Your task to perform on an android device: Go to privacy settings Image 0: 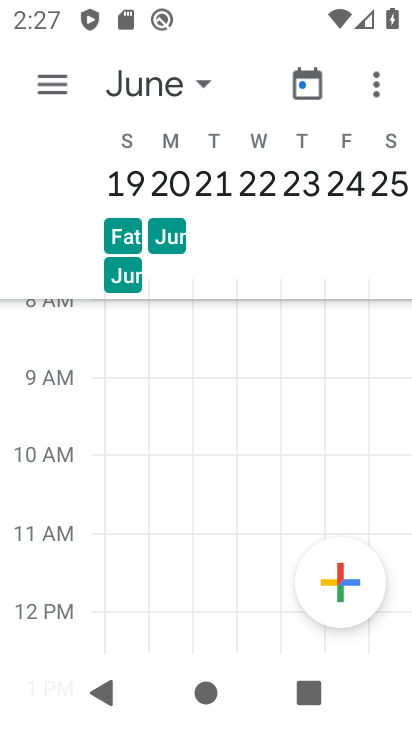
Step 0: press back button
Your task to perform on an android device: Go to privacy settings Image 1: 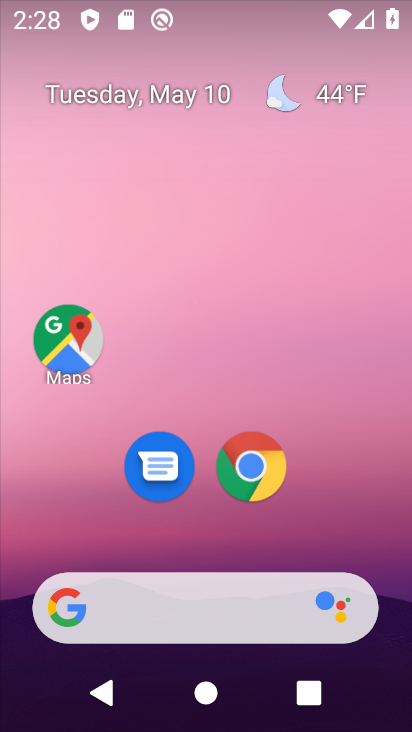
Step 1: drag from (338, 543) to (289, 35)
Your task to perform on an android device: Go to privacy settings Image 2: 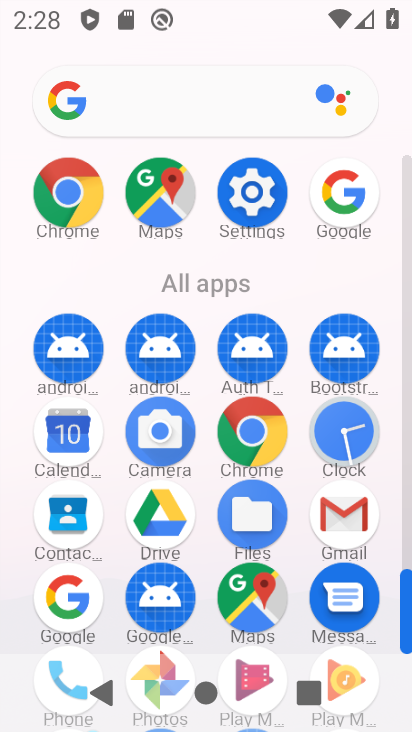
Step 2: click (253, 192)
Your task to perform on an android device: Go to privacy settings Image 3: 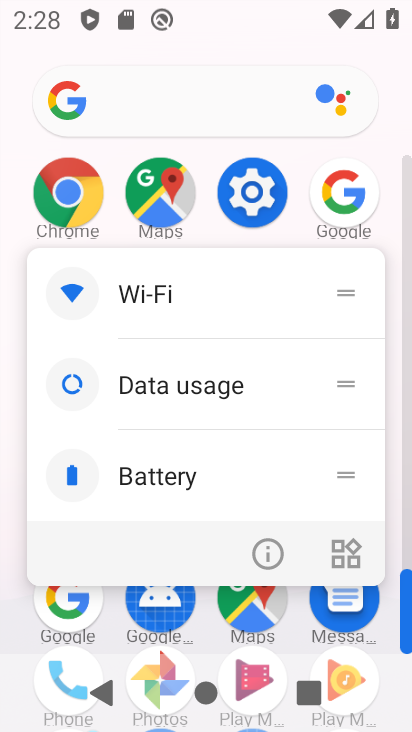
Step 3: click (252, 192)
Your task to perform on an android device: Go to privacy settings Image 4: 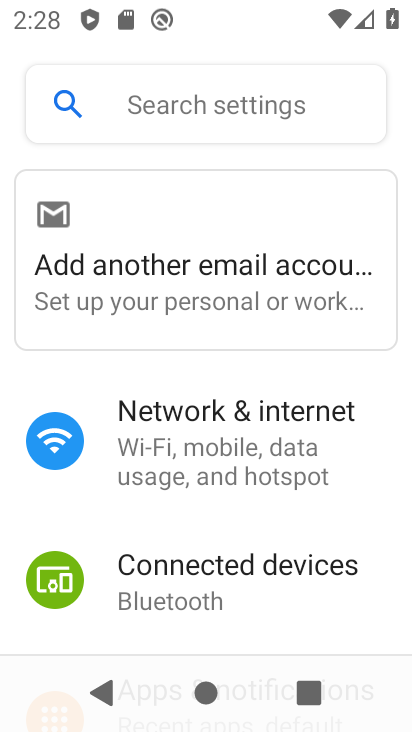
Step 4: drag from (216, 630) to (254, 475)
Your task to perform on an android device: Go to privacy settings Image 5: 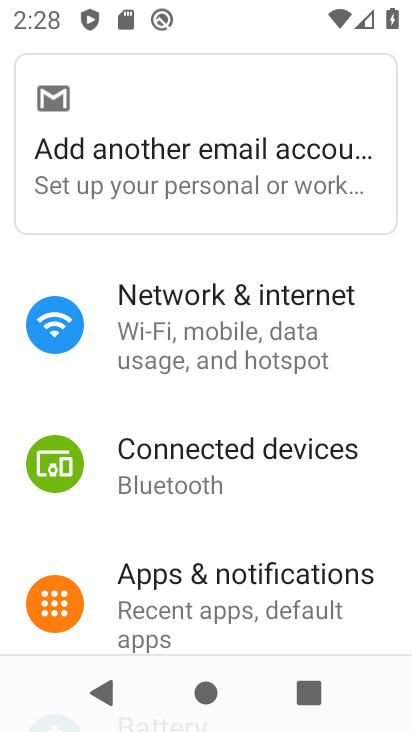
Step 5: drag from (230, 548) to (228, 399)
Your task to perform on an android device: Go to privacy settings Image 6: 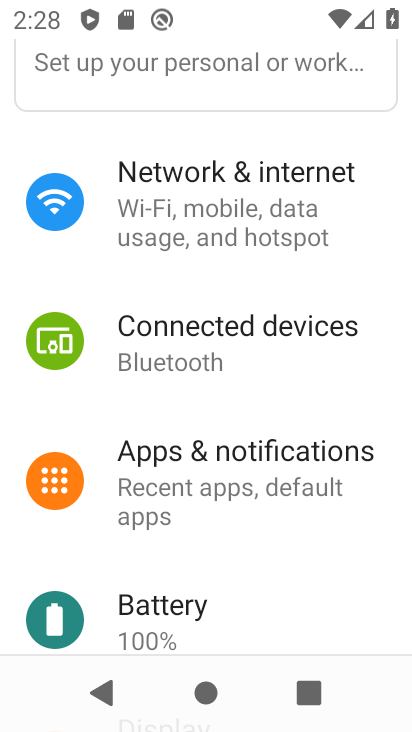
Step 6: drag from (193, 533) to (259, 340)
Your task to perform on an android device: Go to privacy settings Image 7: 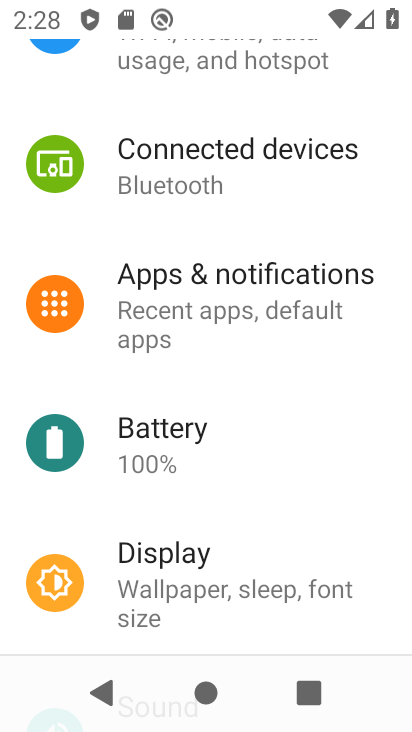
Step 7: drag from (159, 497) to (222, 328)
Your task to perform on an android device: Go to privacy settings Image 8: 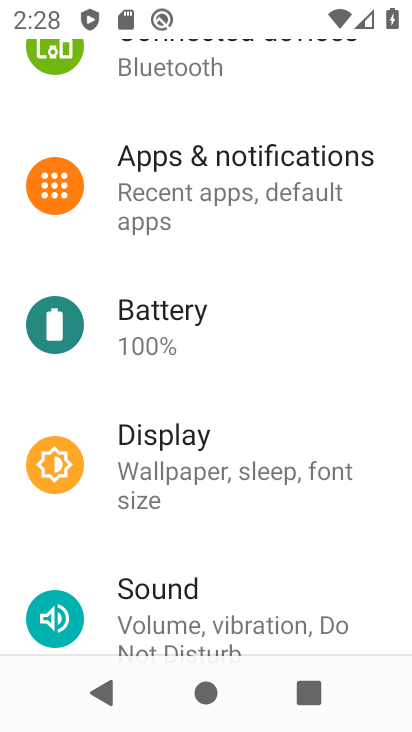
Step 8: drag from (153, 538) to (240, 359)
Your task to perform on an android device: Go to privacy settings Image 9: 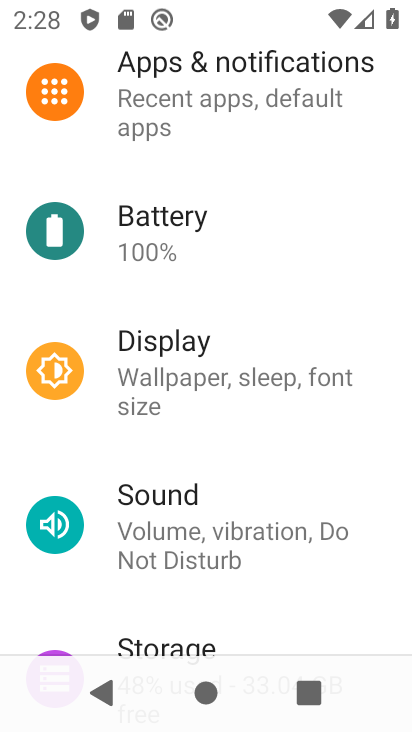
Step 9: drag from (226, 175) to (213, 327)
Your task to perform on an android device: Go to privacy settings Image 10: 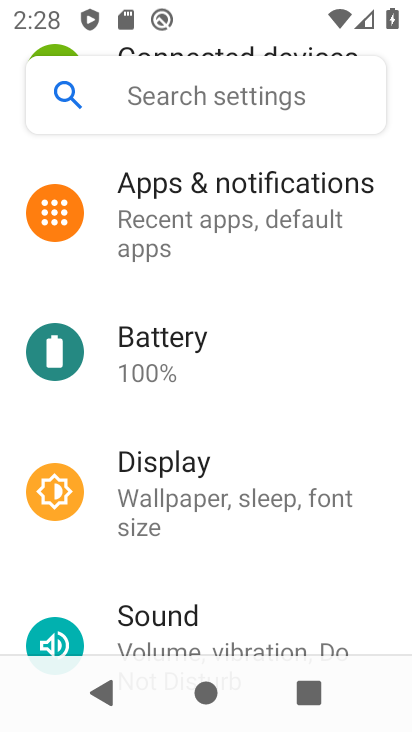
Step 10: drag from (187, 267) to (177, 369)
Your task to perform on an android device: Go to privacy settings Image 11: 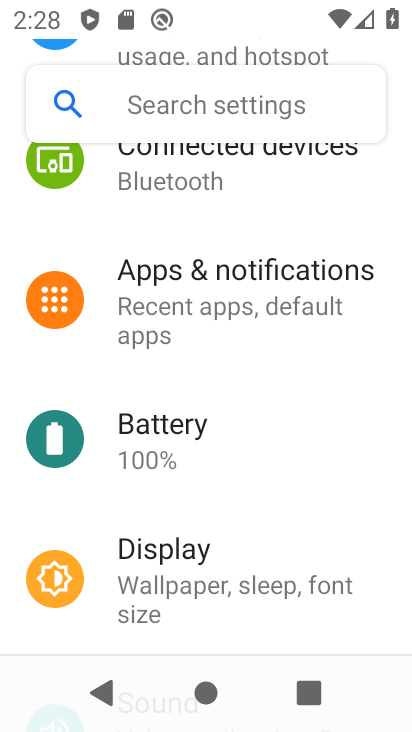
Step 11: drag from (146, 488) to (167, 344)
Your task to perform on an android device: Go to privacy settings Image 12: 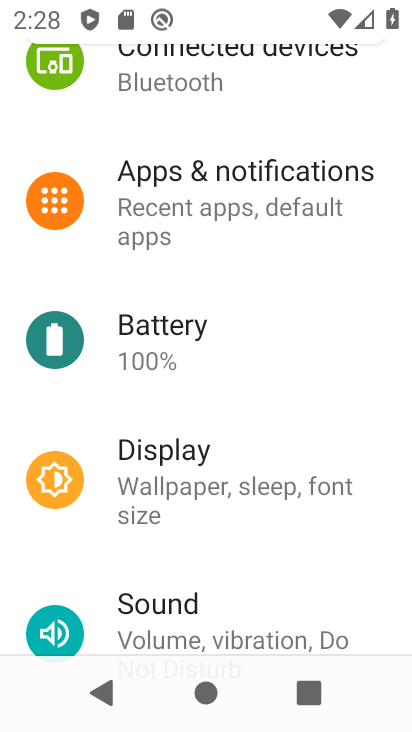
Step 12: drag from (142, 550) to (194, 418)
Your task to perform on an android device: Go to privacy settings Image 13: 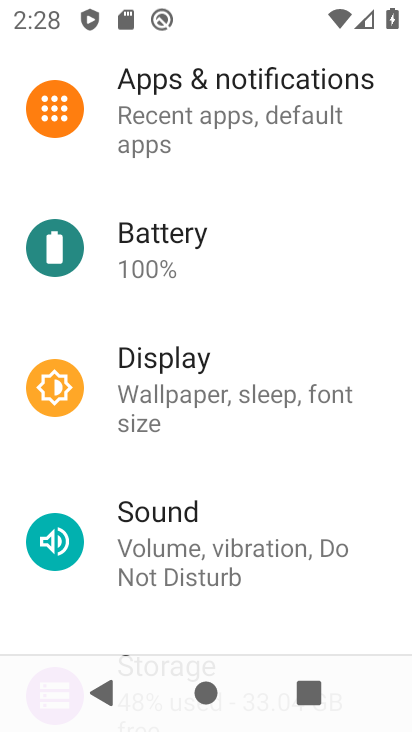
Step 13: drag from (148, 588) to (221, 362)
Your task to perform on an android device: Go to privacy settings Image 14: 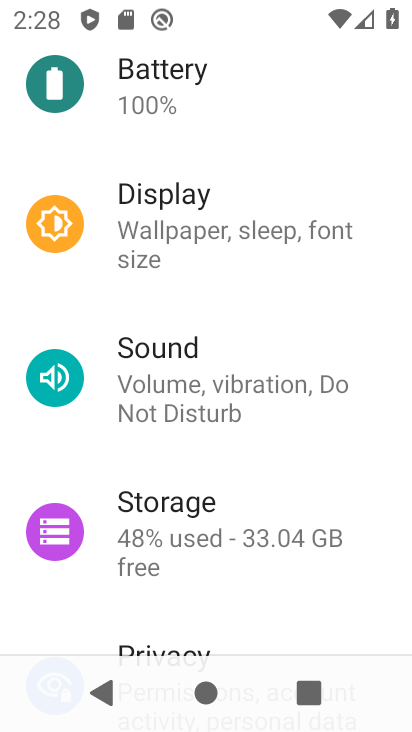
Step 14: drag from (146, 461) to (204, 312)
Your task to perform on an android device: Go to privacy settings Image 15: 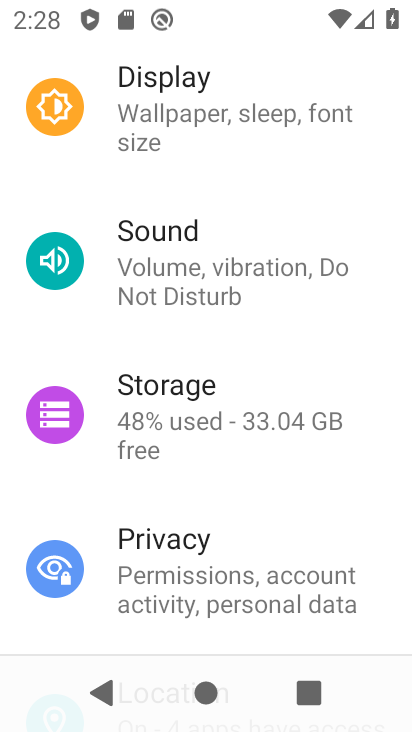
Step 15: drag from (160, 504) to (268, 338)
Your task to perform on an android device: Go to privacy settings Image 16: 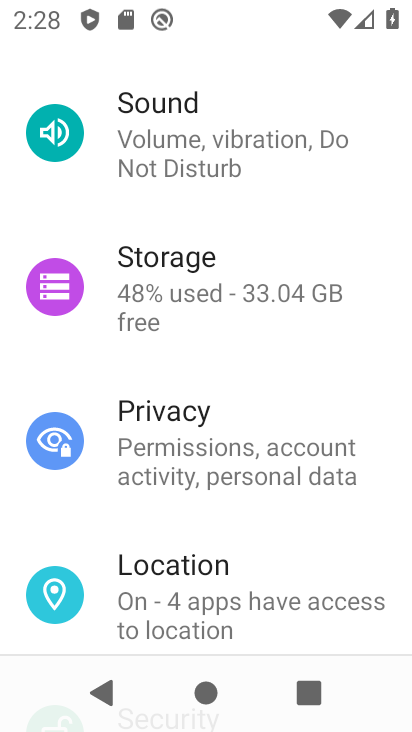
Step 16: click (166, 411)
Your task to perform on an android device: Go to privacy settings Image 17: 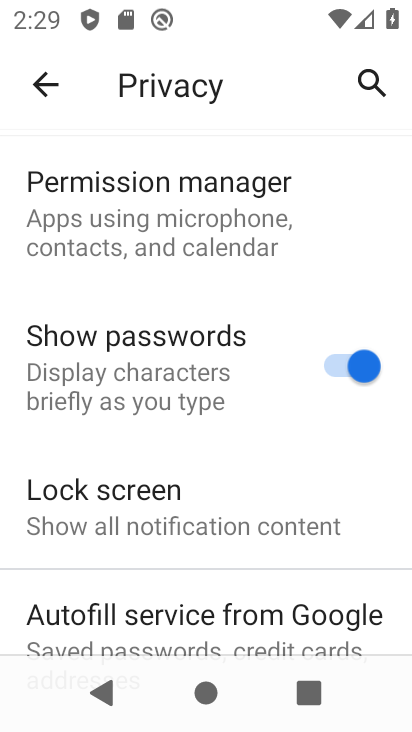
Step 17: task complete